Your task to perform on an android device: open app "PlayWell" (install if not already installed) Image 0: 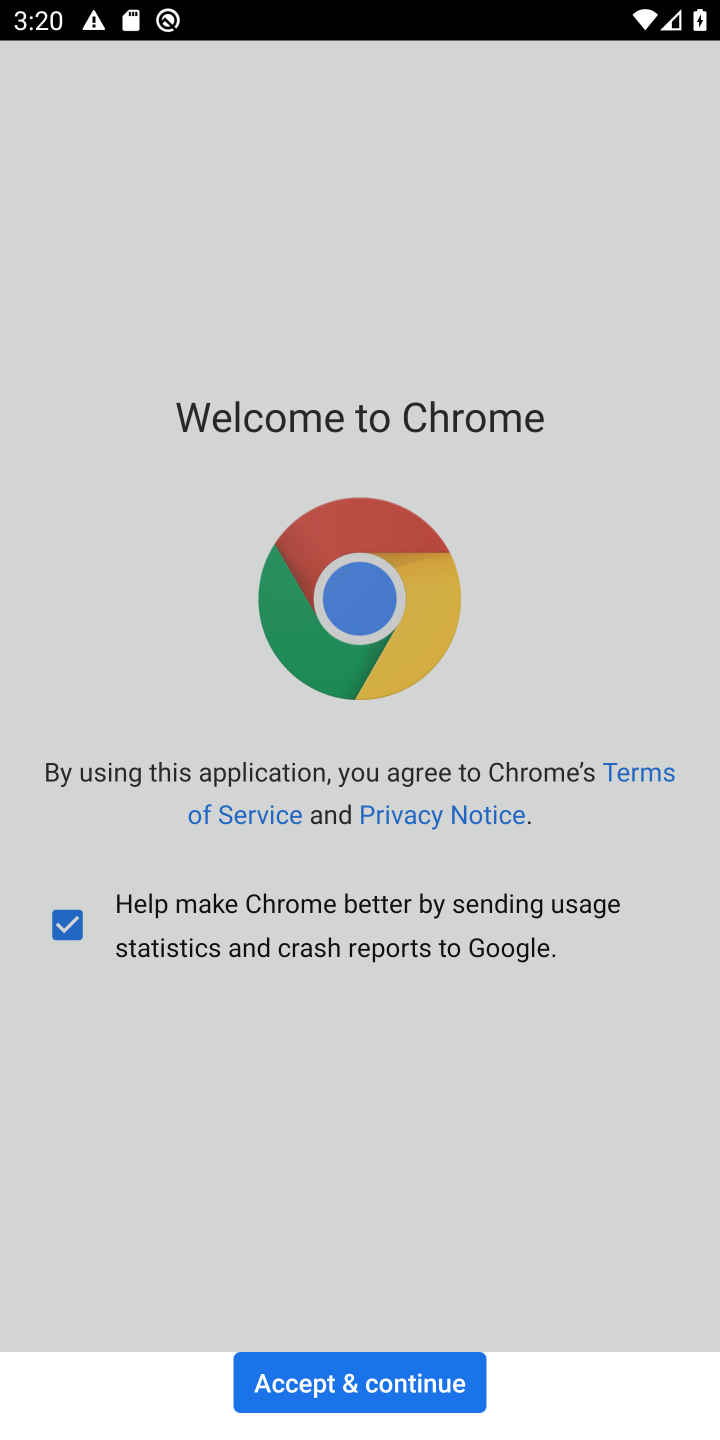
Step 0: press home button
Your task to perform on an android device: open app "PlayWell" (install if not already installed) Image 1: 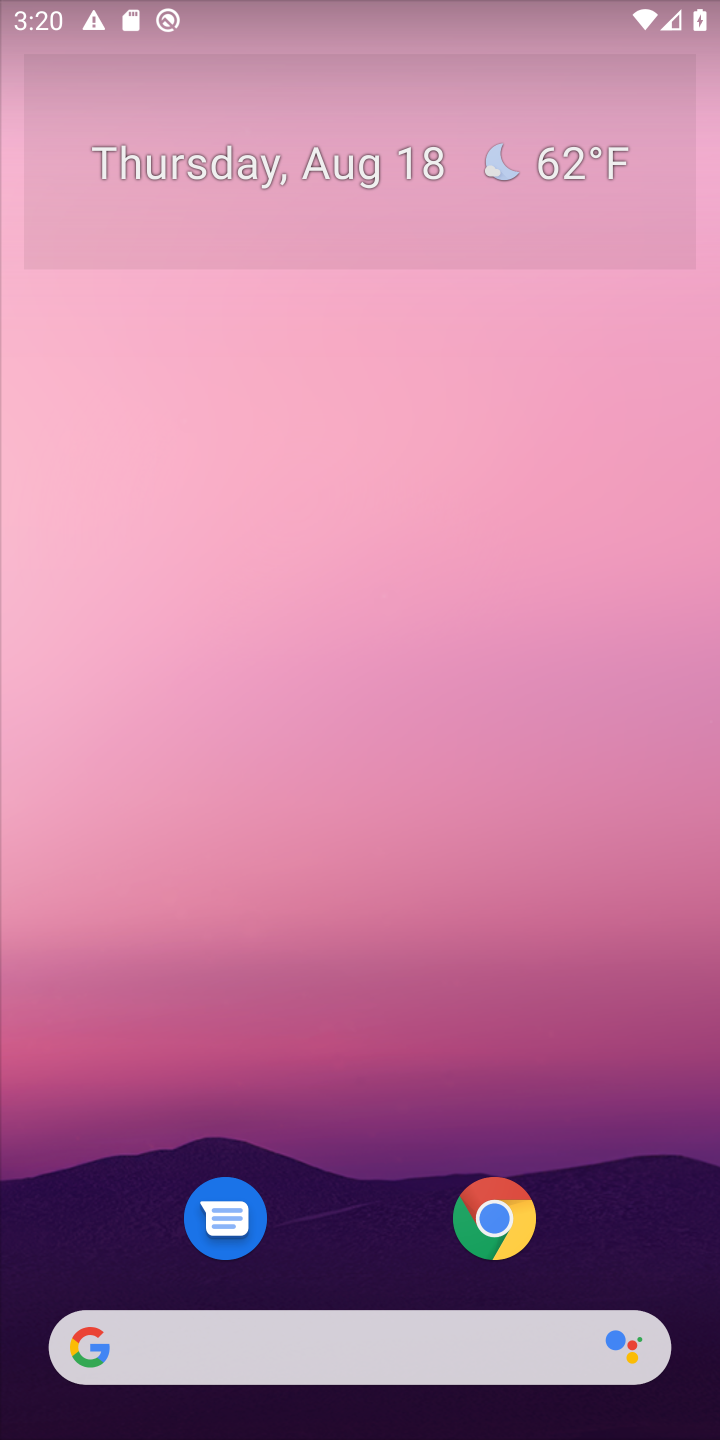
Step 1: drag from (385, 645) to (417, 391)
Your task to perform on an android device: open app "PlayWell" (install if not already installed) Image 2: 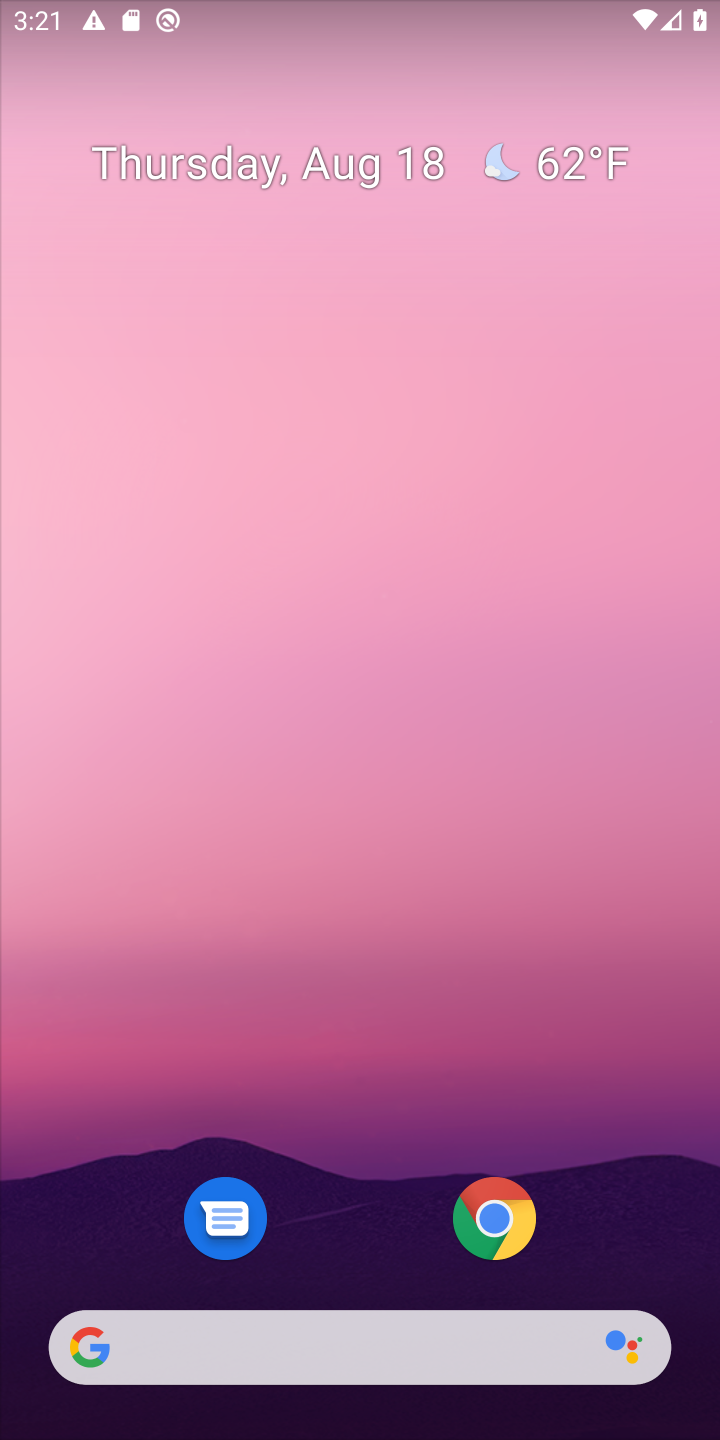
Step 2: drag from (360, 1190) to (401, 275)
Your task to perform on an android device: open app "PlayWell" (install if not already installed) Image 3: 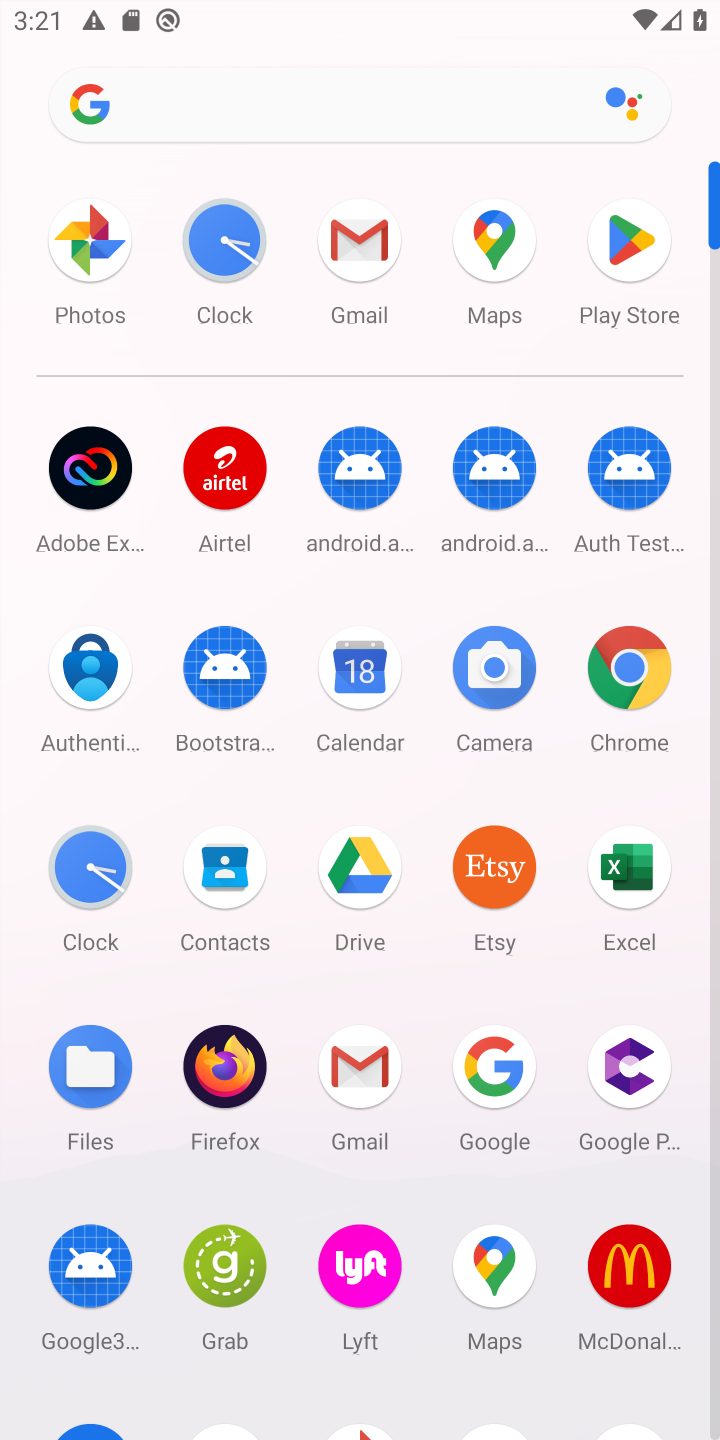
Step 3: click (608, 247)
Your task to perform on an android device: open app "PlayWell" (install if not already installed) Image 4: 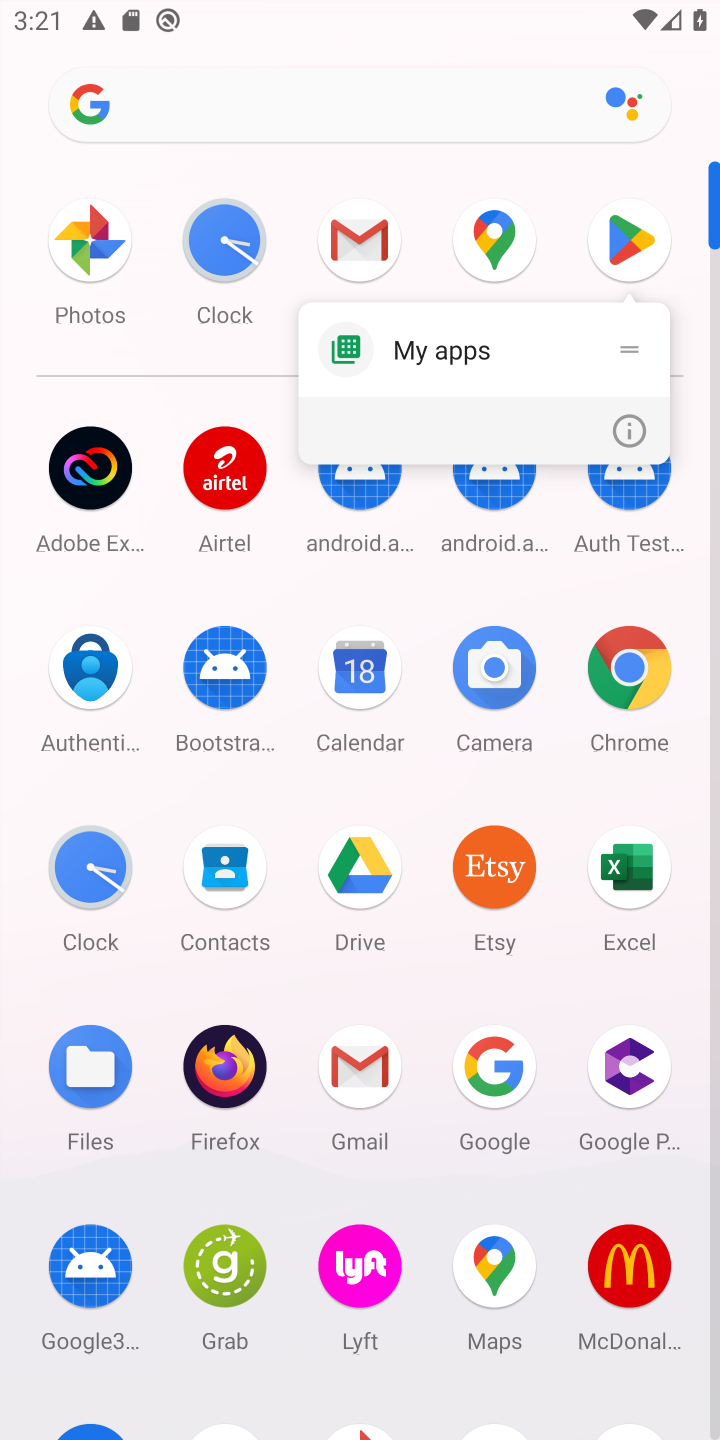
Step 4: click (643, 220)
Your task to perform on an android device: open app "PlayWell" (install if not already installed) Image 5: 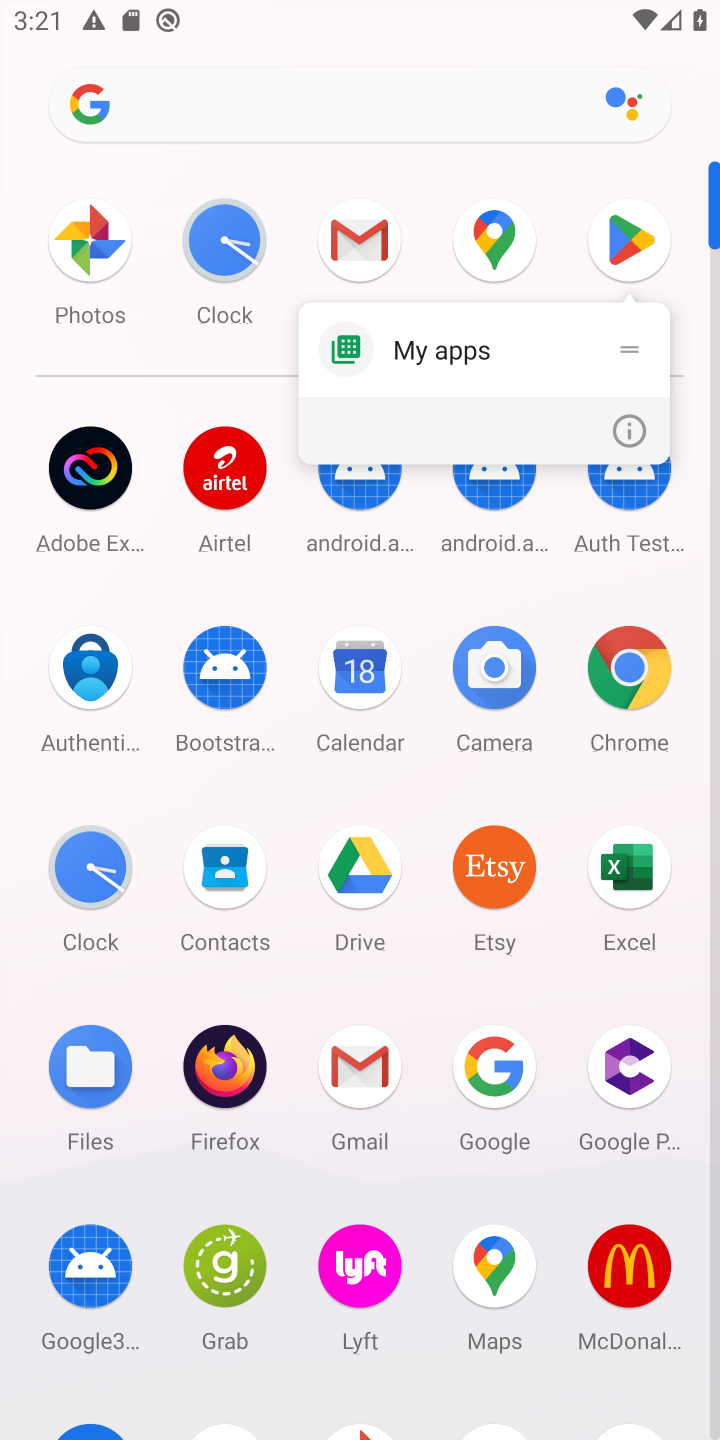
Step 5: click (619, 218)
Your task to perform on an android device: open app "PlayWell" (install if not already installed) Image 6: 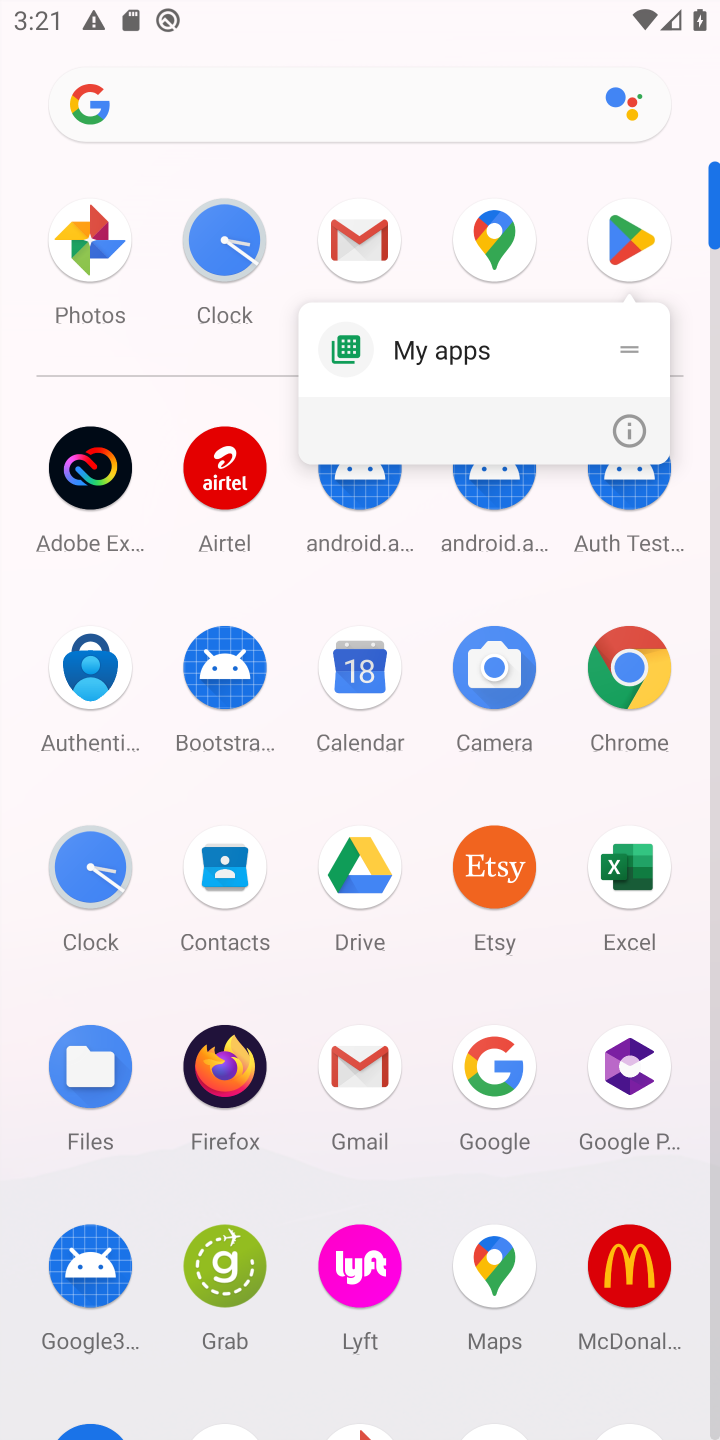
Step 6: click (619, 218)
Your task to perform on an android device: open app "PlayWell" (install if not already installed) Image 7: 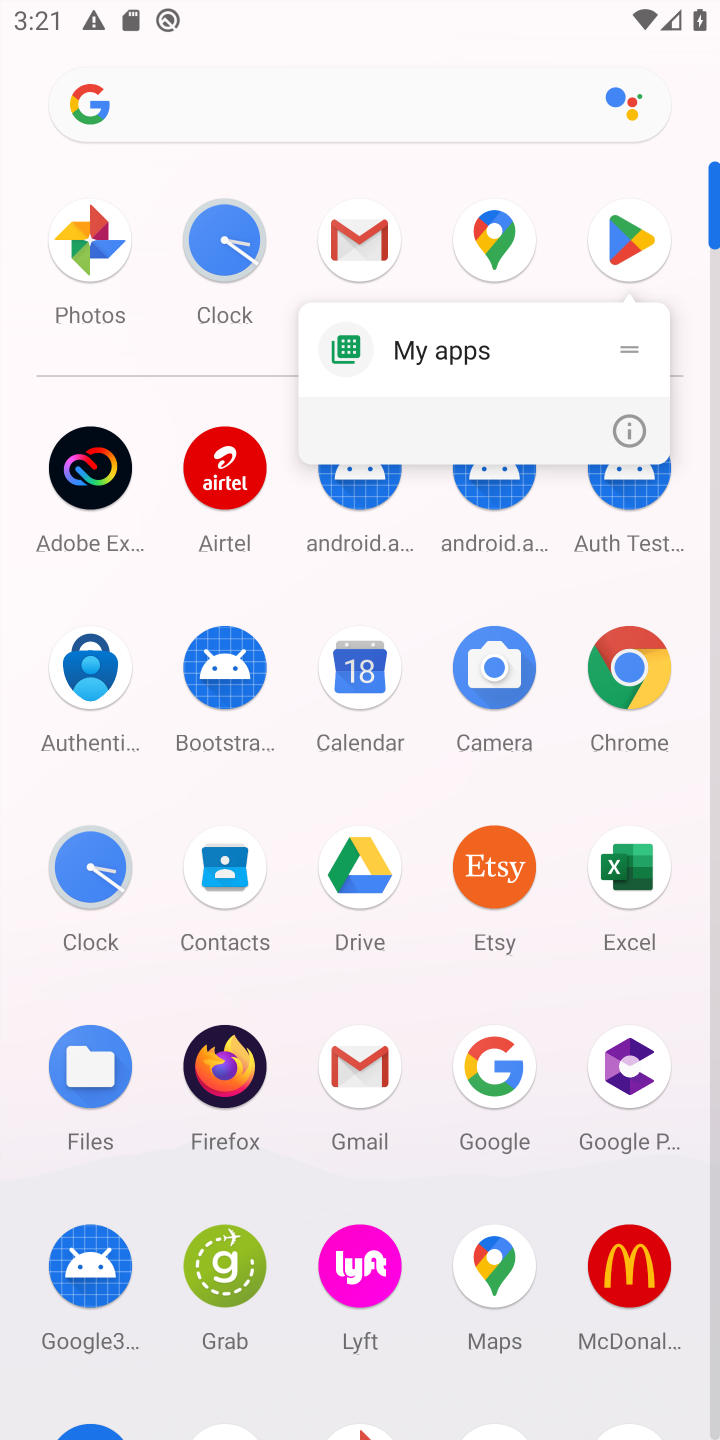
Step 7: click (619, 218)
Your task to perform on an android device: open app "PlayWell" (install if not already installed) Image 8: 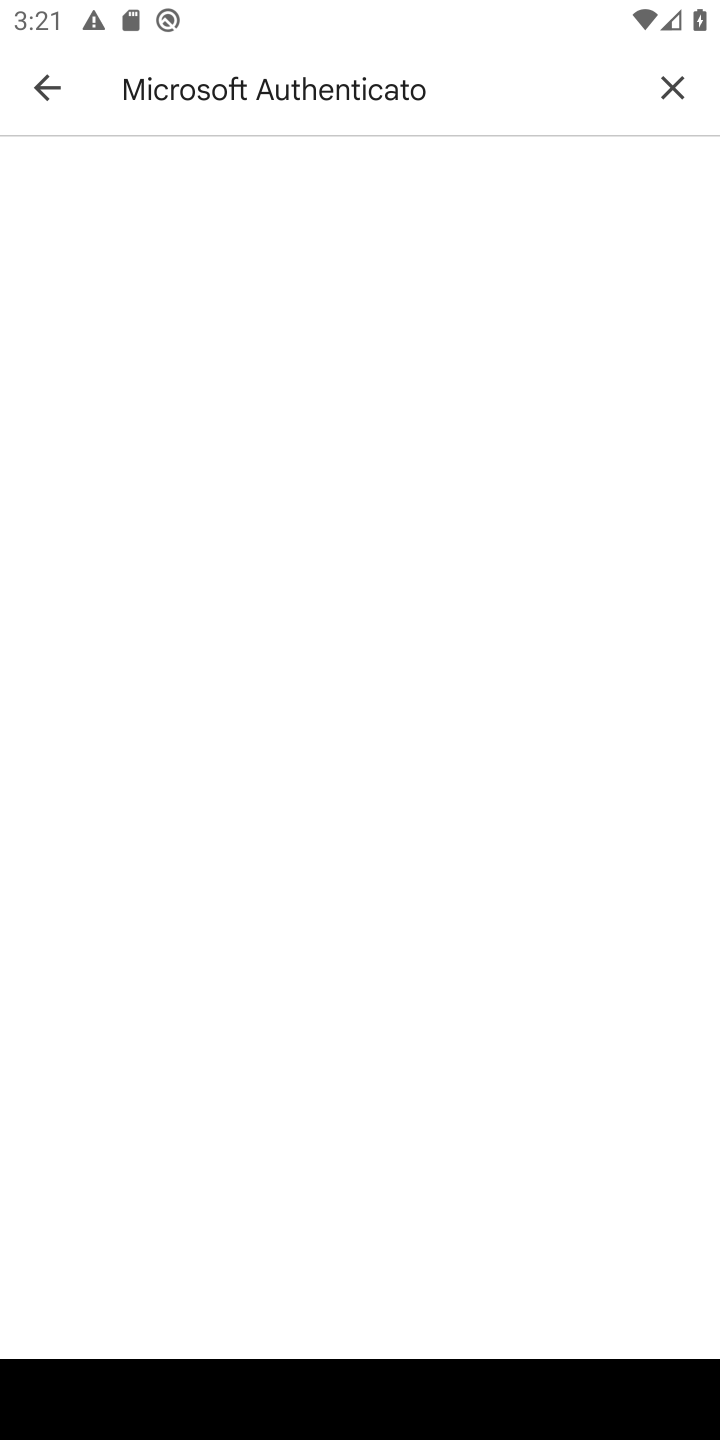
Step 8: click (668, 90)
Your task to perform on an android device: open app "PlayWell" (install if not already installed) Image 9: 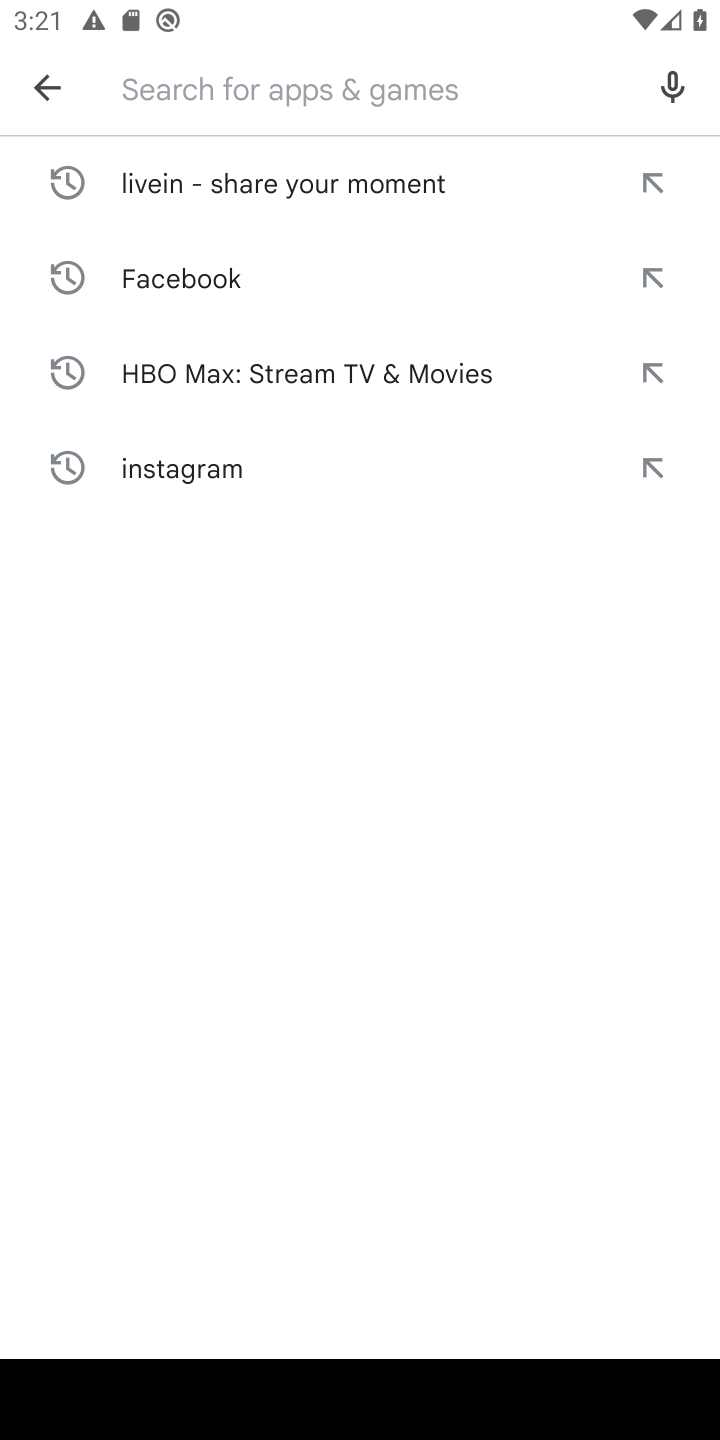
Step 9: type "PlayWell"
Your task to perform on an android device: open app "PlayWell" (install if not already installed) Image 10: 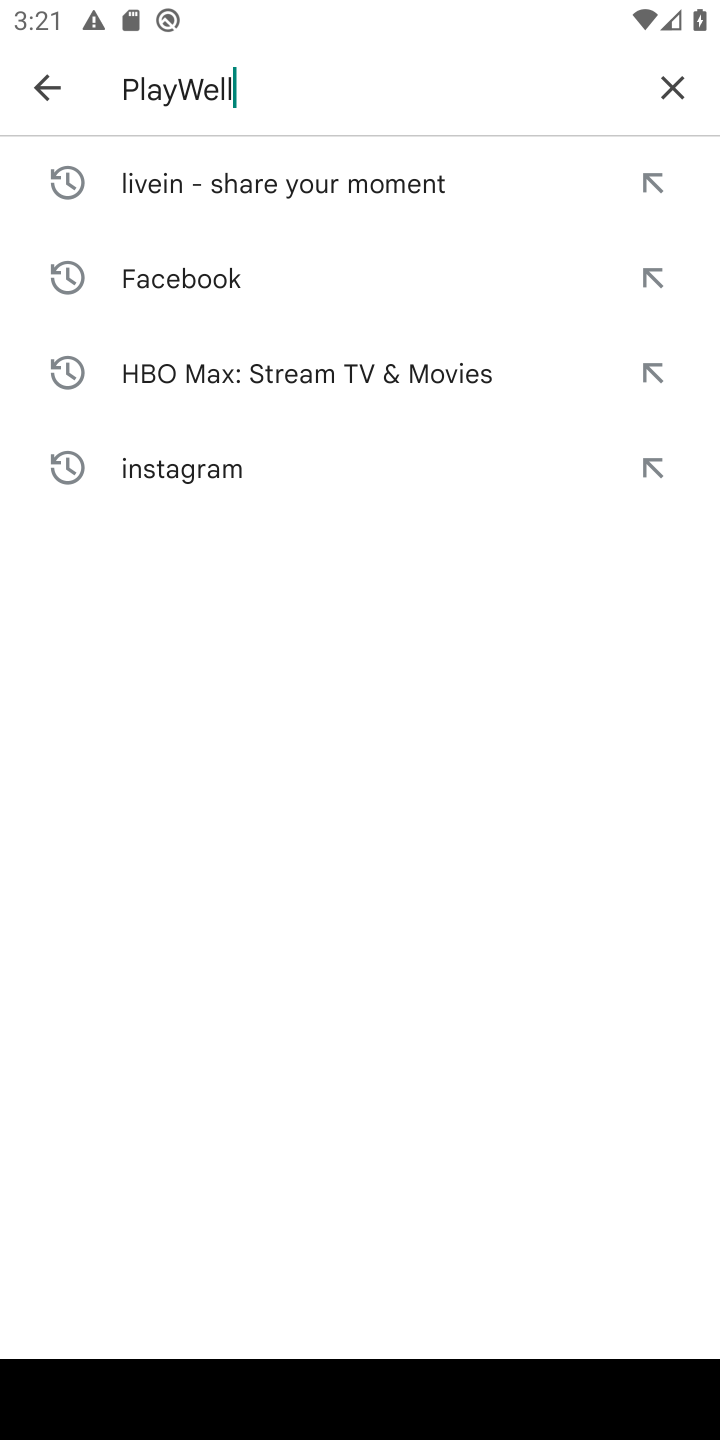
Step 10: type ""
Your task to perform on an android device: open app "PlayWell" (install if not already installed) Image 11: 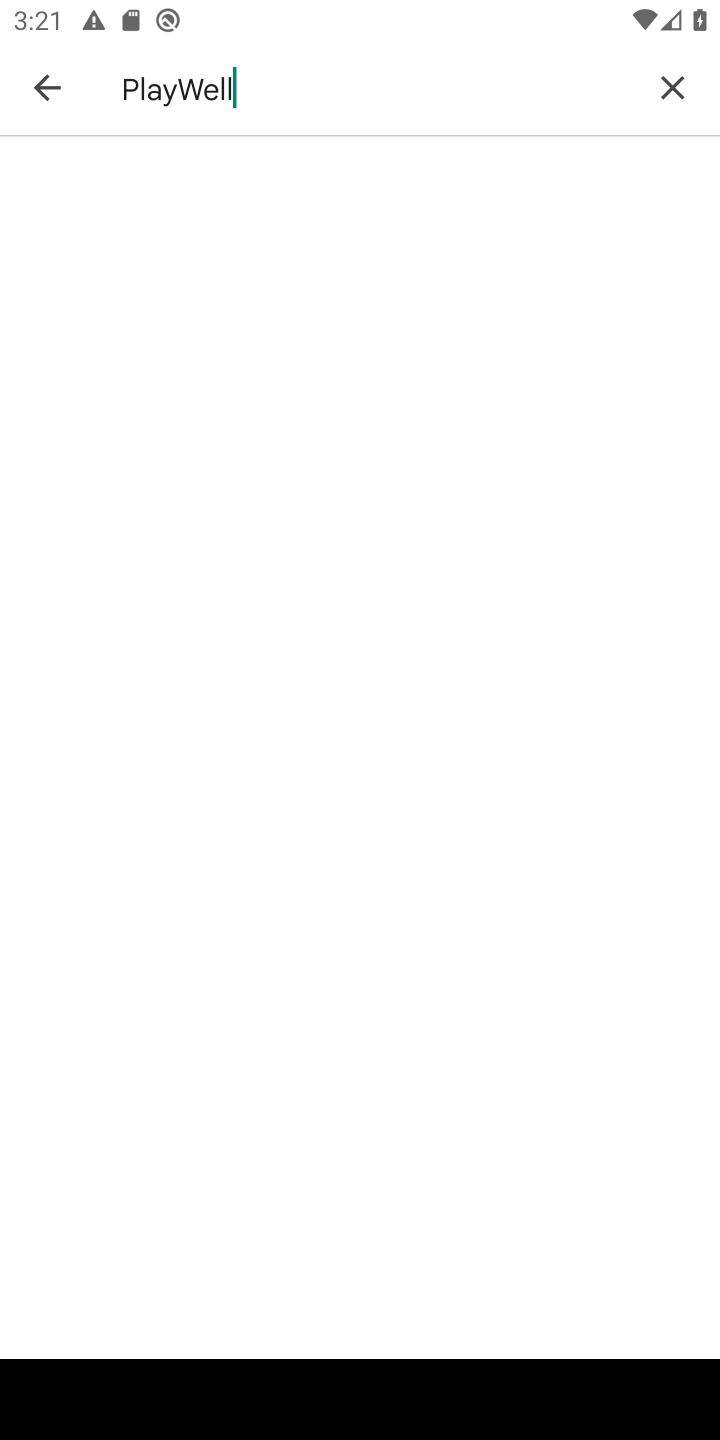
Step 11: task complete